Your task to perform on an android device: Open calendar and show me the third week of next month Image 0: 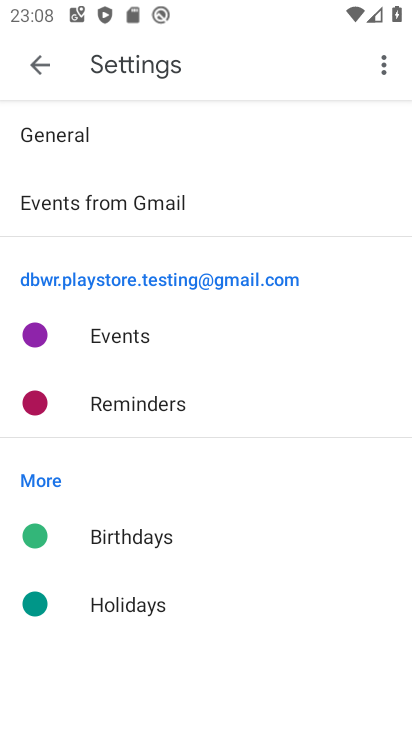
Step 0: press home button
Your task to perform on an android device: Open calendar and show me the third week of next month Image 1: 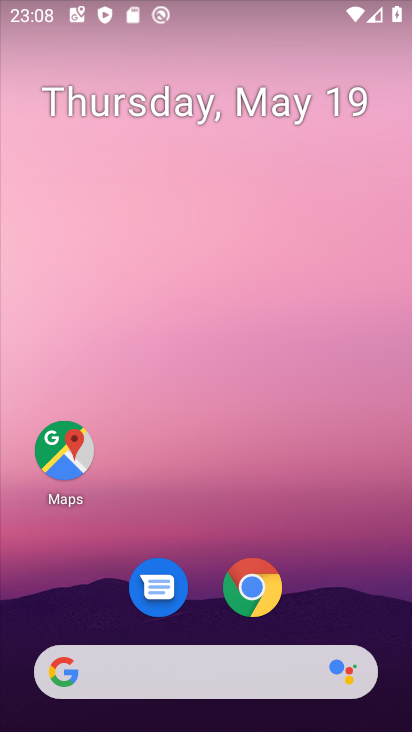
Step 1: drag from (232, 704) to (200, 188)
Your task to perform on an android device: Open calendar and show me the third week of next month Image 2: 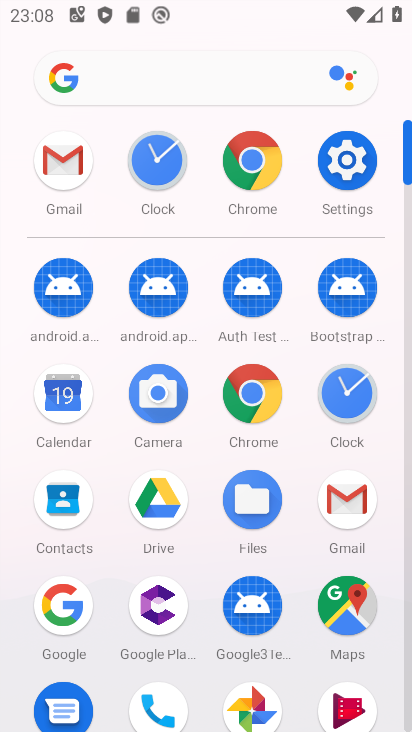
Step 2: click (44, 400)
Your task to perform on an android device: Open calendar and show me the third week of next month Image 3: 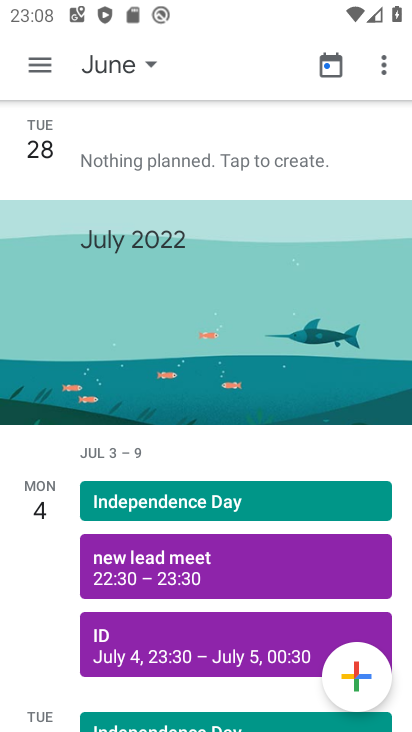
Step 3: click (39, 65)
Your task to perform on an android device: Open calendar and show me the third week of next month Image 4: 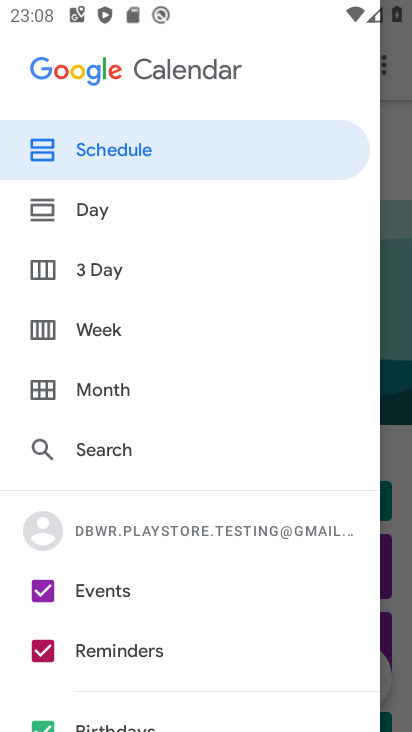
Step 4: click (108, 394)
Your task to perform on an android device: Open calendar and show me the third week of next month Image 5: 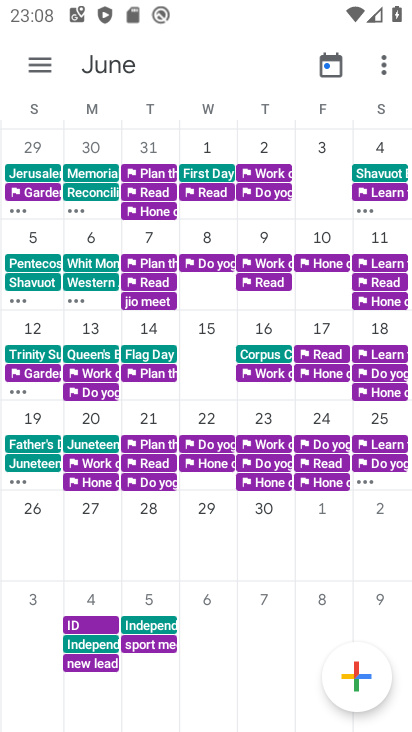
Step 5: click (99, 328)
Your task to perform on an android device: Open calendar and show me the third week of next month Image 6: 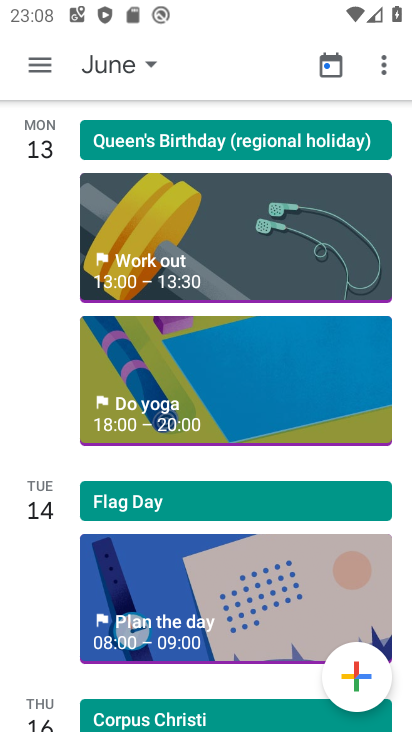
Step 6: task complete